Your task to perform on an android device: Show me recent news Image 0: 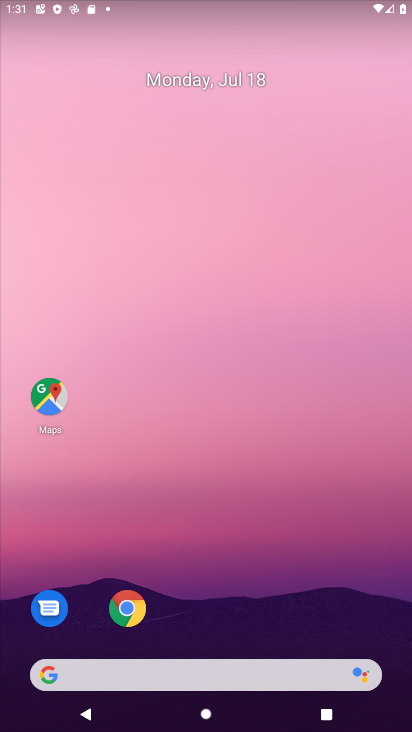
Step 0: drag from (362, 642) to (268, 76)
Your task to perform on an android device: Show me recent news Image 1: 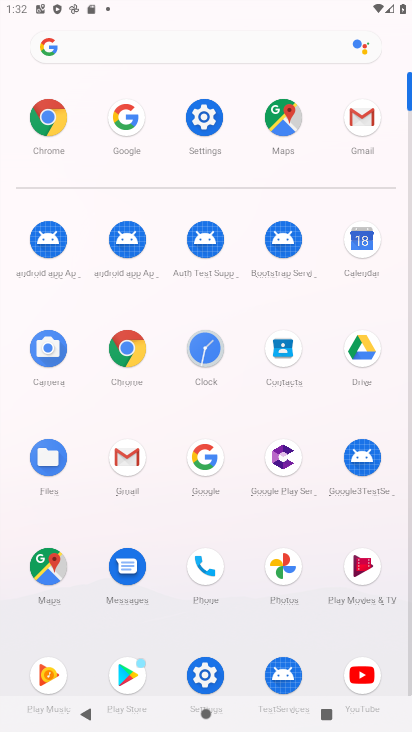
Step 1: click (198, 453)
Your task to perform on an android device: Show me recent news Image 2: 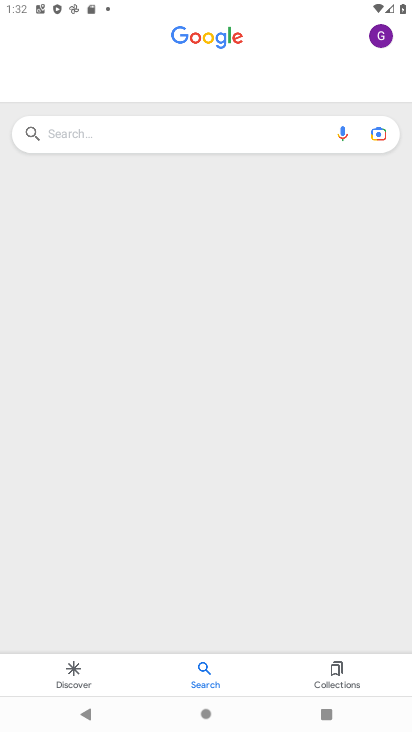
Step 2: click (101, 135)
Your task to perform on an android device: Show me recent news Image 3: 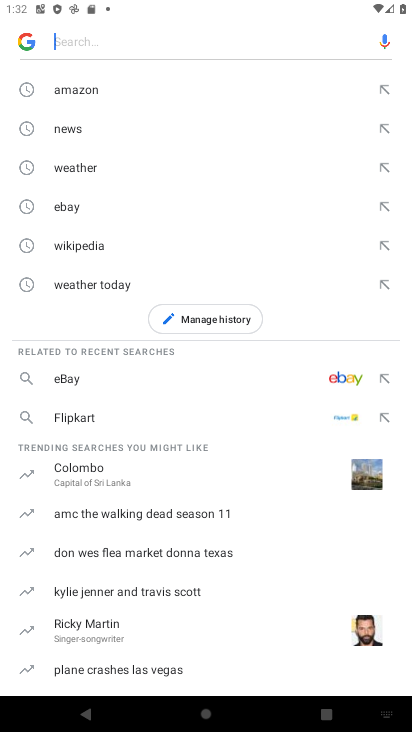
Step 3: type "recent news"
Your task to perform on an android device: Show me recent news Image 4: 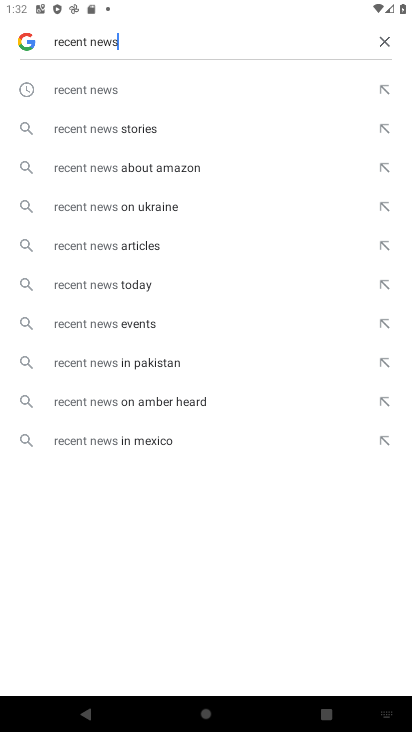
Step 4: click (95, 90)
Your task to perform on an android device: Show me recent news Image 5: 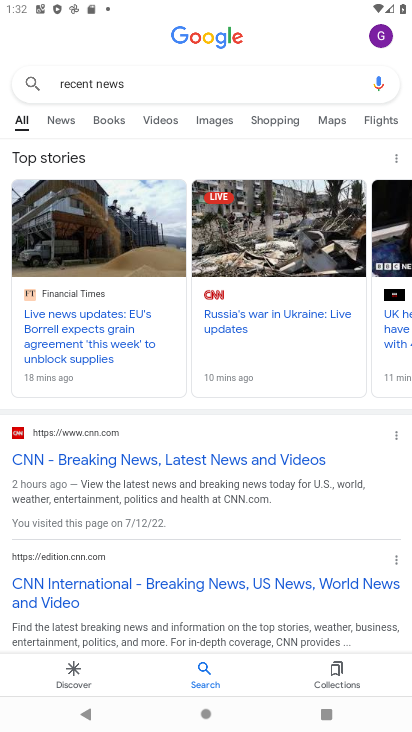
Step 5: task complete